Your task to perform on an android device: Go to Google maps Image 0: 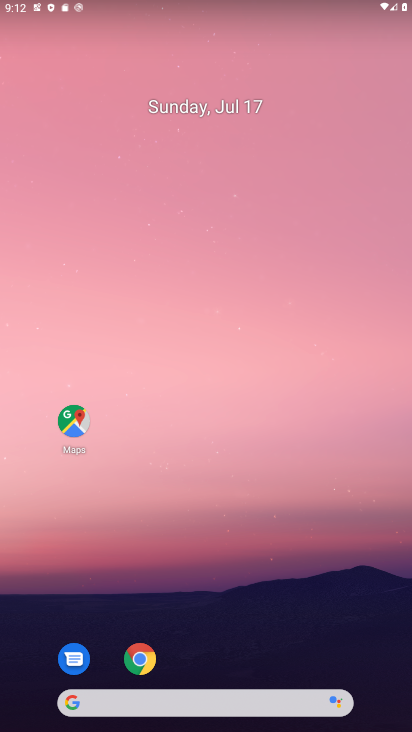
Step 0: click (73, 426)
Your task to perform on an android device: Go to Google maps Image 1: 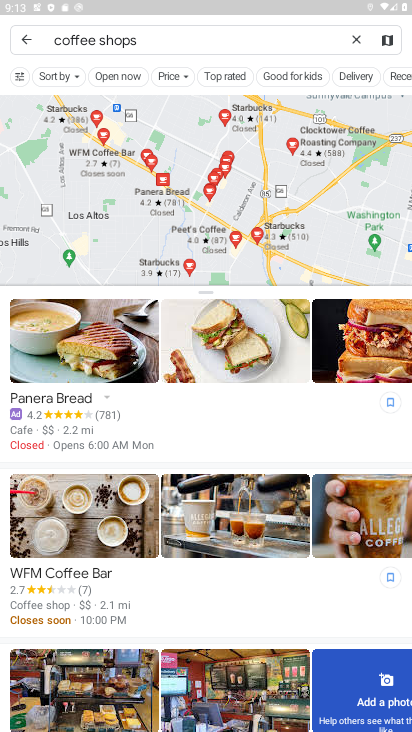
Step 1: task complete